Your task to perform on an android device: Open sound settings Image 0: 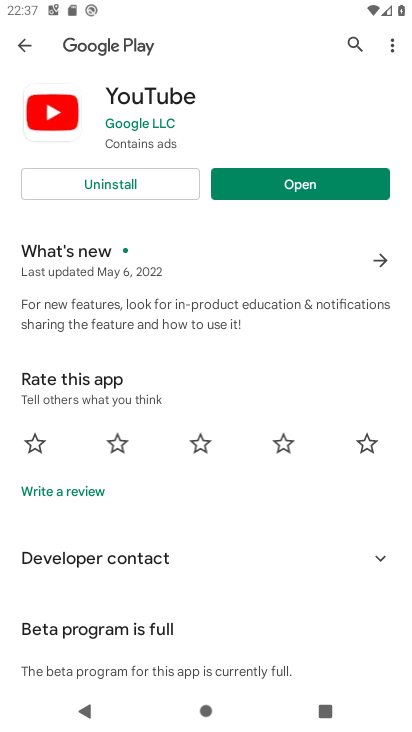
Step 0: press home button
Your task to perform on an android device: Open sound settings Image 1: 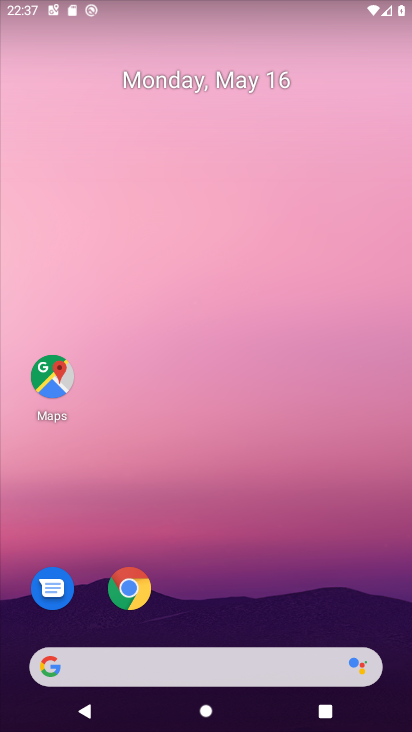
Step 1: drag from (212, 631) to (248, 31)
Your task to perform on an android device: Open sound settings Image 2: 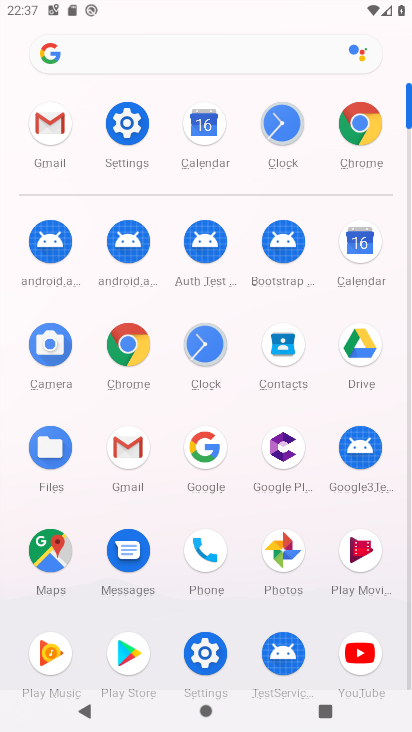
Step 2: click (123, 118)
Your task to perform on an android device: Open sound settings Image 3: 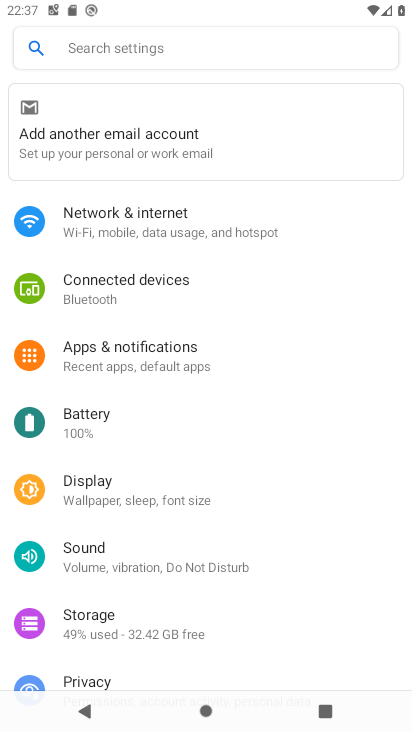
Step 3: click (128, 553)
Your task to perform on an android device: Open sound settings Image 4: 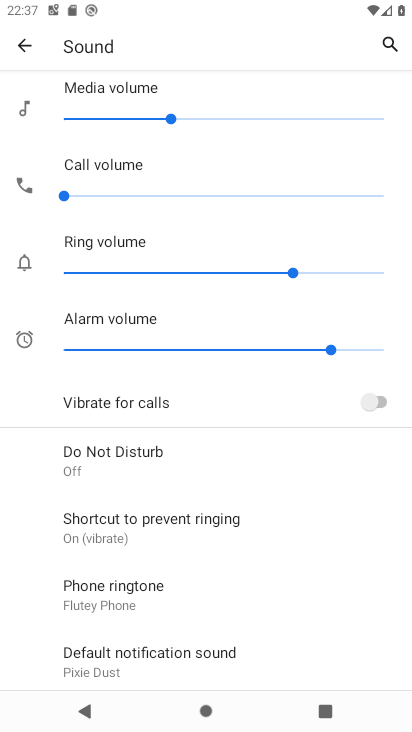
Step 4: task complete